Your task to perform on an android device: check battery use Image 0: 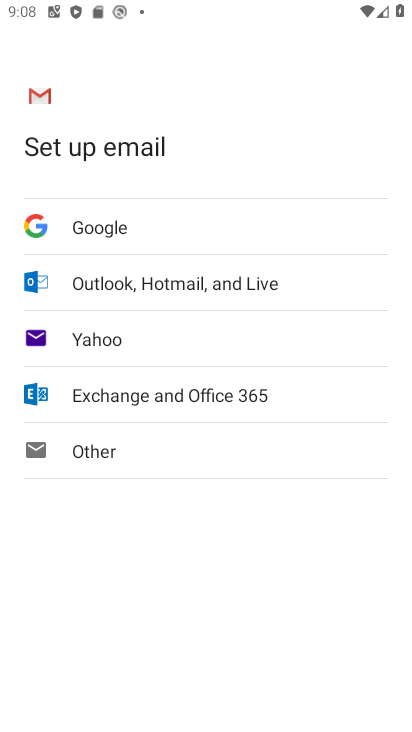
Step 0: press home button
Your task to perform on an android device: check battery use Image 1: 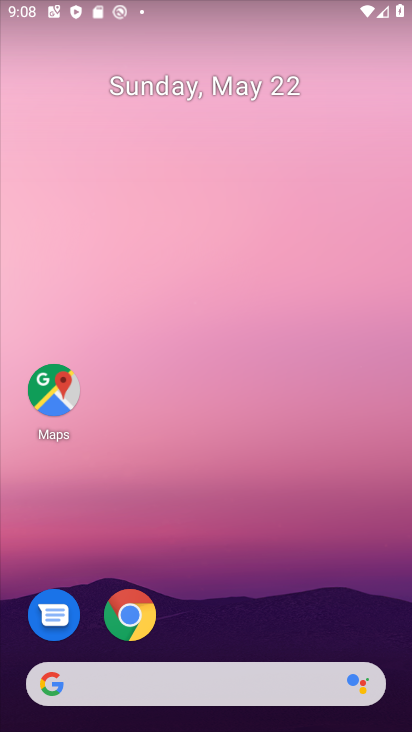
Step 1: drag from (265, 626) to (282, 285)
Your task to perform on an android device: check battery use Image 2: 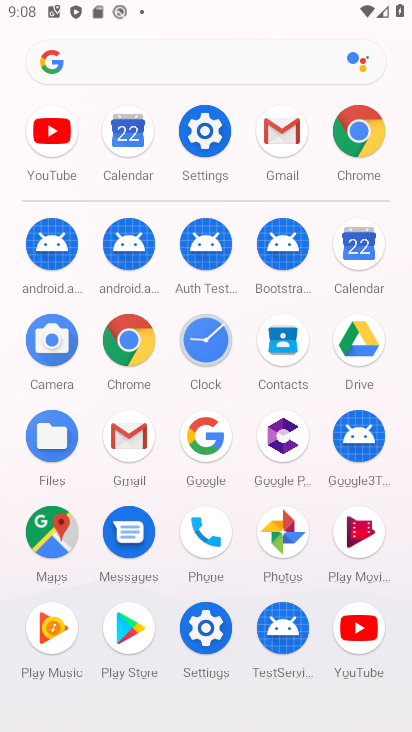
Step 2: click (198, 129)
Your task to perform on an android device: check battery use Image 3: 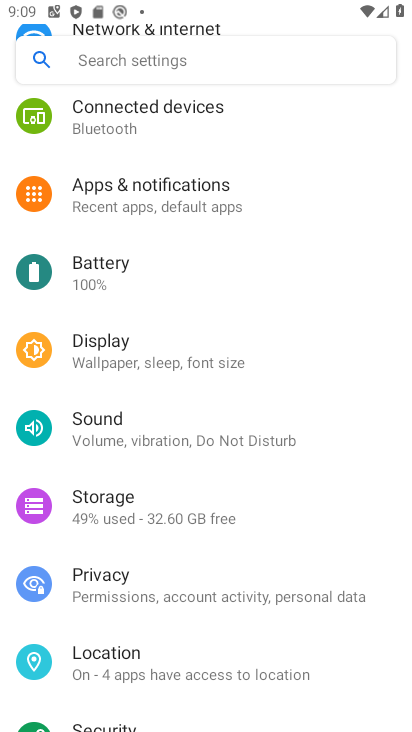
Step 3: click (142, 245)
Your task to perform on an android device: check battery use Image 4: 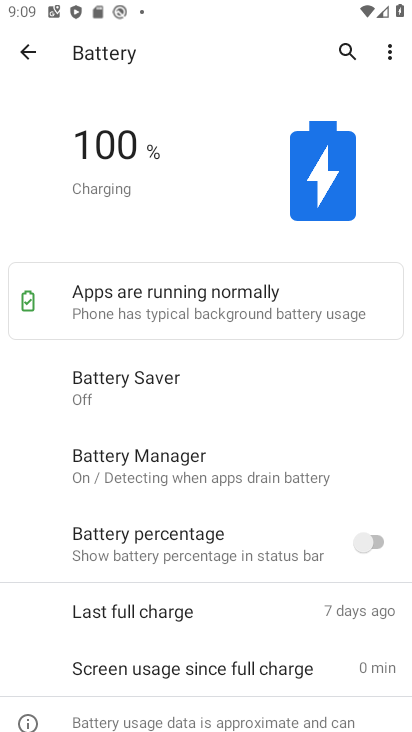
Step 4: task complete